Your task to perform on an android device: toggle show notifications on the lock screen Image 0: 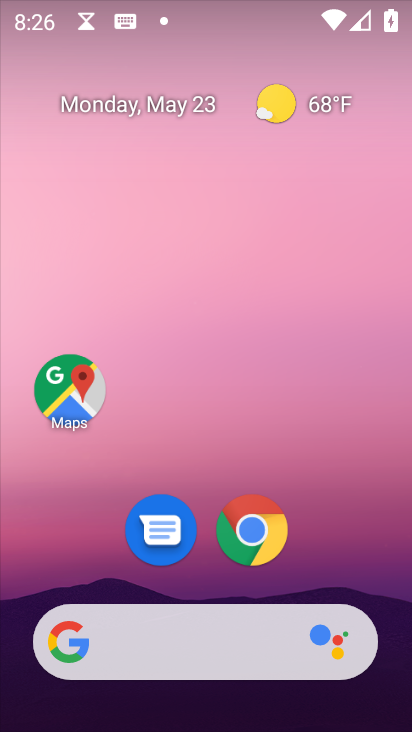
Step 0: drag from (72, 603) to (178, 0)
Your task to perform on an android device: toggle show notifications on the lock screen Image 1: 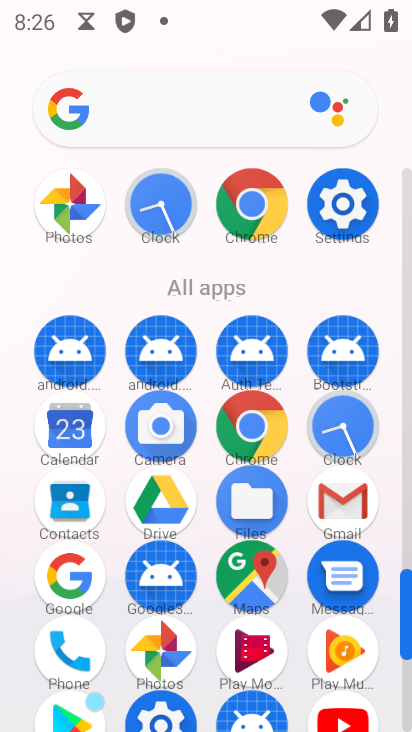
Step 1: drag from (196, 616) to (230, 300)
Your task to perform on an android device: toggle show notifications on the lock screen Image 2: 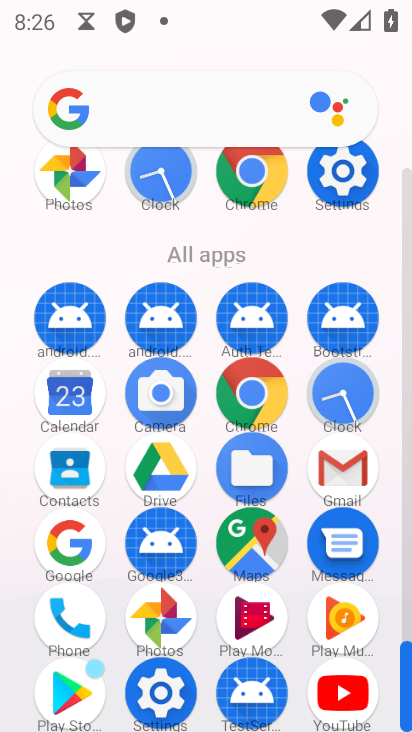
Step 2: click (160, 710)
Your task to perform on an android device: toggle show notifications on the lock screen Image 3: 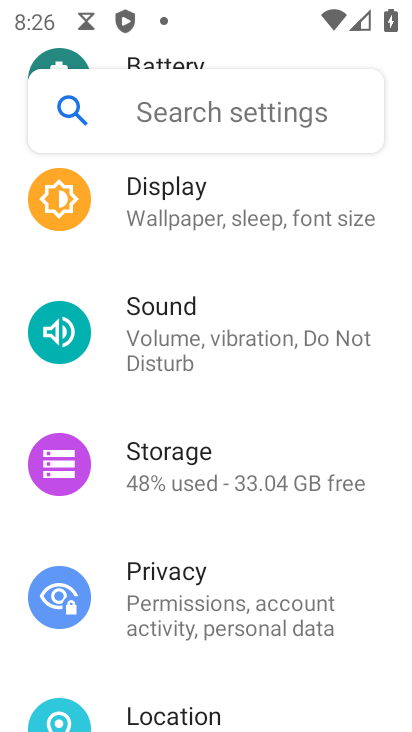
Step 3: drag from (238, 187) to (215, 594)
Your task to perform on an android device: toggle show notifications on the lock screen Image 4: 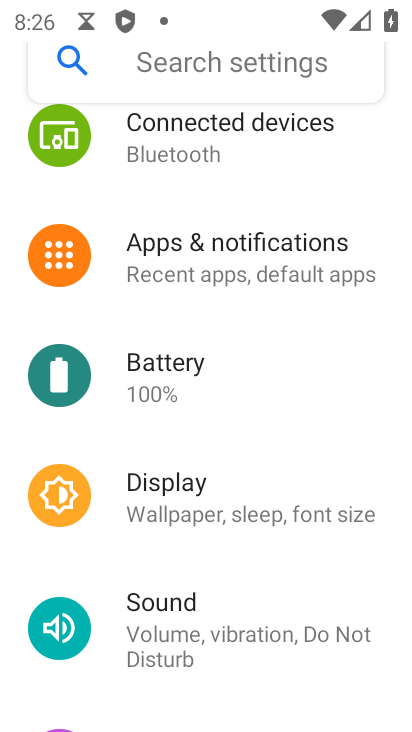
Step 4: click (206, 276)
Your task to perform on an android device: toggle show notifications on the lock screen Image 5: 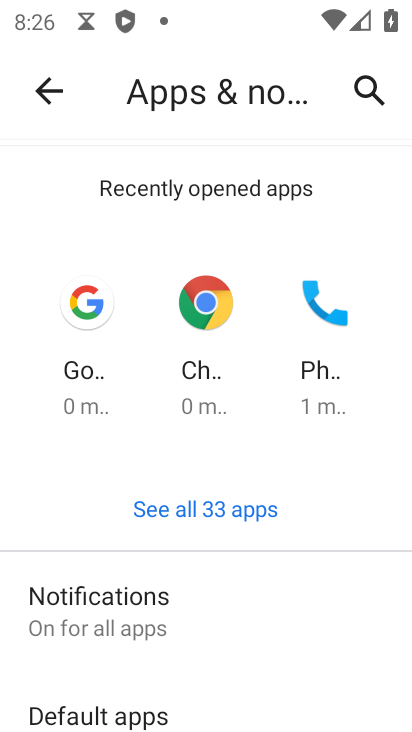
Step 5: click (201, 628)
Your task to perform on an android device: toggle show notifications on the lock screen Image 6: 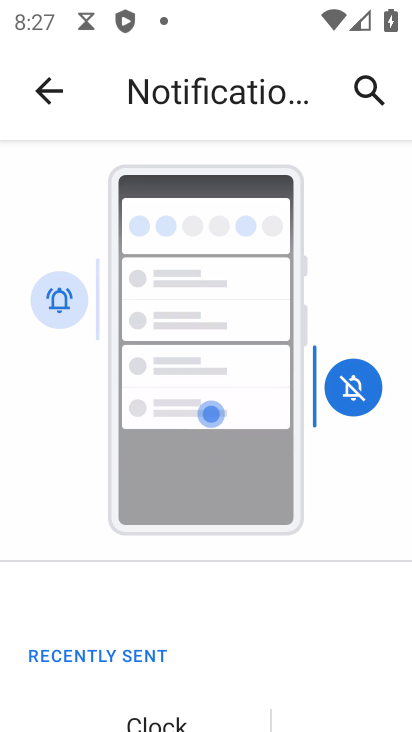
Step 6: drag from (333, 633) to (410, 277)
Your task to perform on an android device: toggle show notifications on the lock screen Image 7: 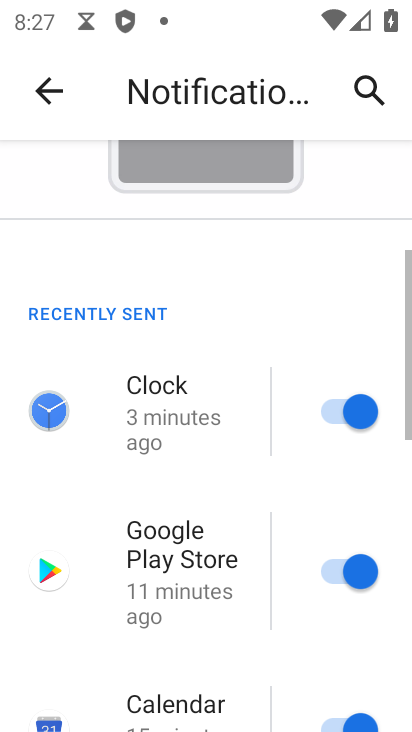
Step 7: drag from (228, 676) to (281, 76)
Your task to perform on an android device: toggle show notifications on the lock screen Image 8: 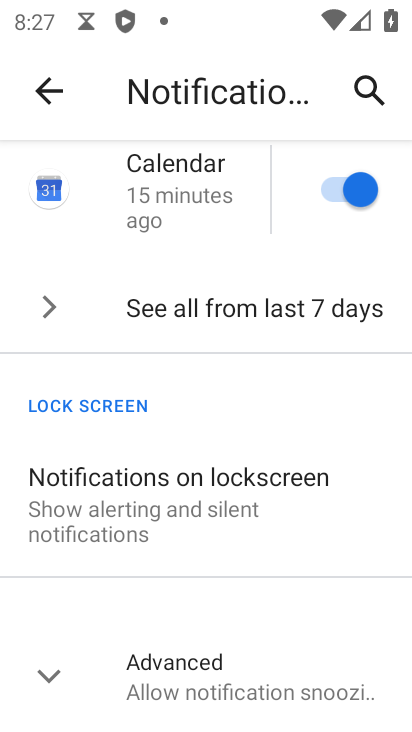
Step 8: click (199, 532)
Your task to perform on an android device: toggle show notifications on the lock screen Image 9: 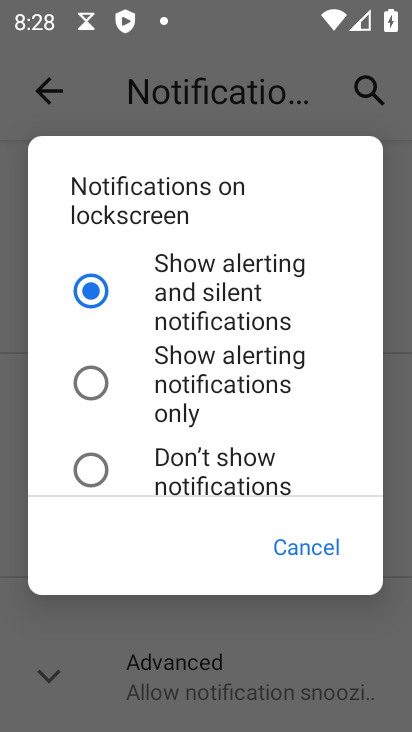
Step 9: click (157, 449)
Your task to perform on an android device: toggle show notifications on the lock screen Image 10: 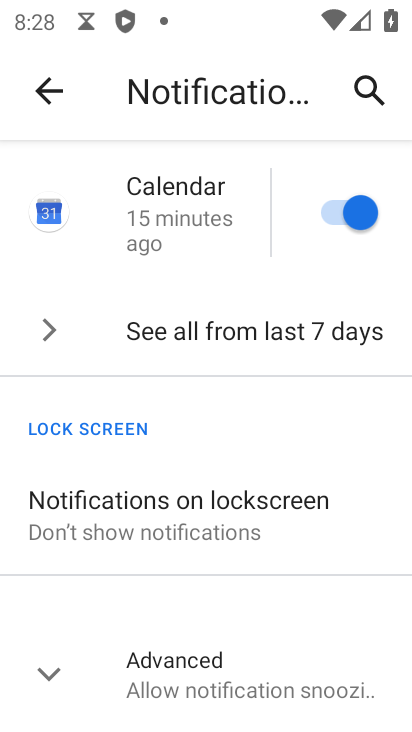
Step 10: task complete